Your task to perform on an android device: Go to Android settings Image 0: 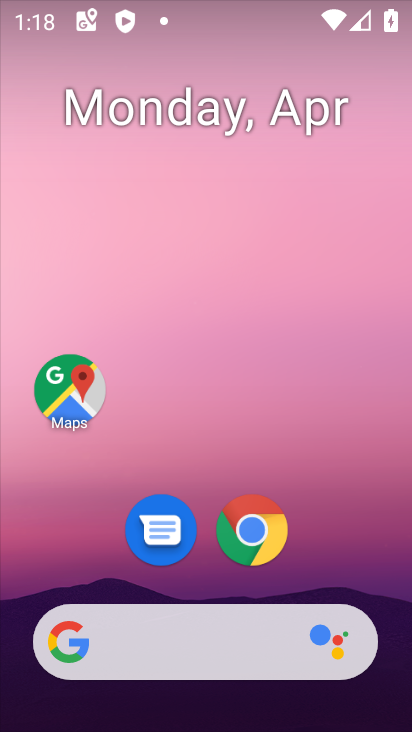
Step 0: drag from (350, 544) to (315, 187)
Your task to perform on an android device: Go to Android settings Image 1: 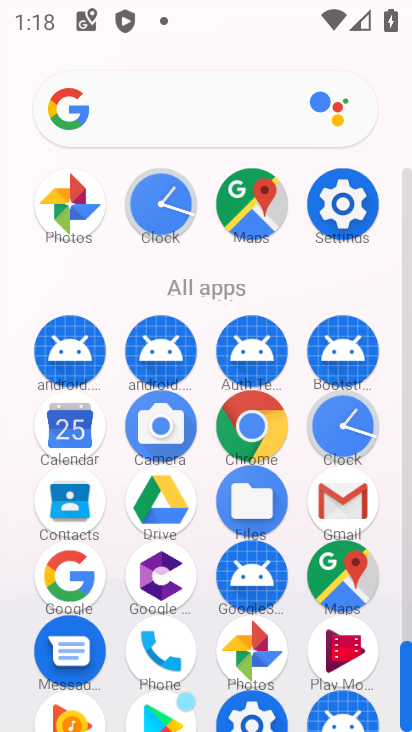
Step 1: click (342, 203)
Your task to perform on an android device: Go to Android settings Image 2: 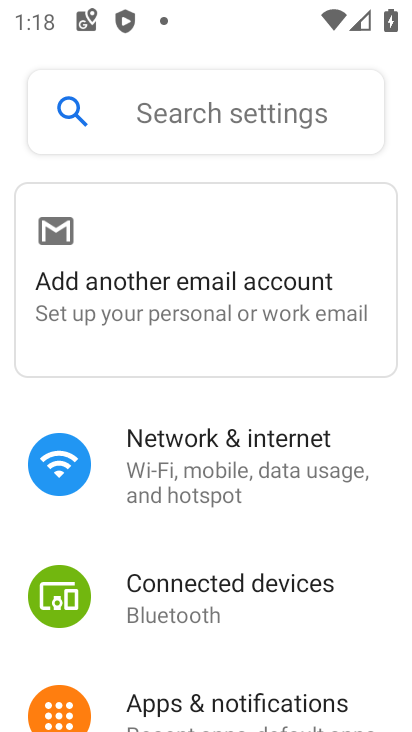
Step 2: drag from (241, 550) to (168, 233)
Your task to perform on an android device: Go to Android settings Image 3: 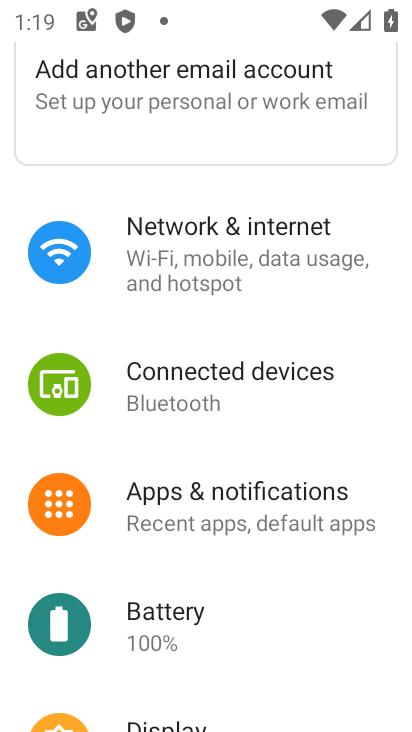
Step 3: drag from (245, 614) to (224, 358)
Your task to perform on an android device: Go to Android settings Image 4: 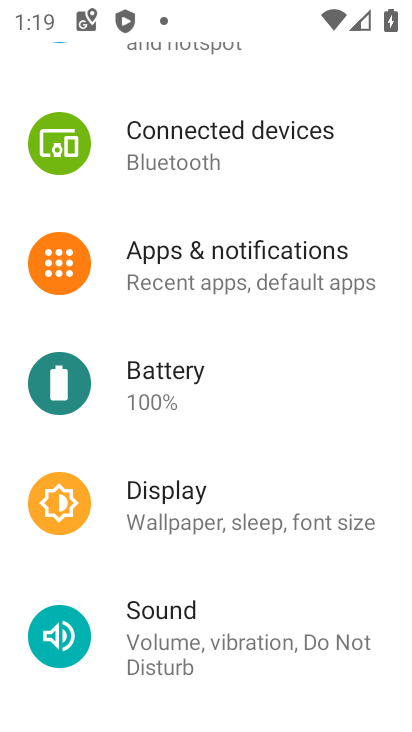
Step 4: drag from (237, 594) to (191, 103)
Your task to perform on an android device: Go to Android settings Image 5: 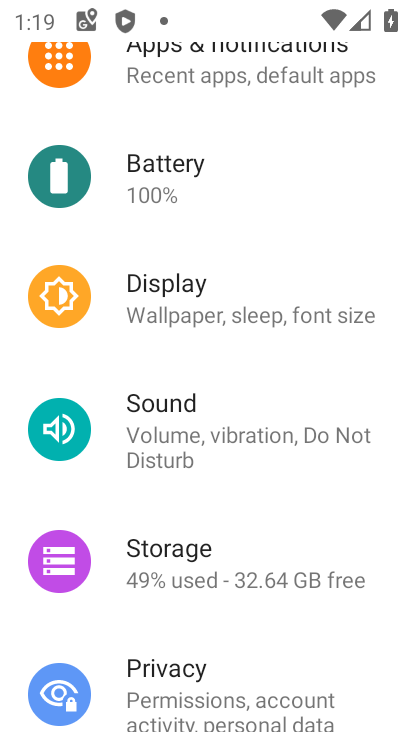
Step 5: drag from (223, 526) to (229, 145)
Your task to perform on an android device: Go to Android settings Image 6: 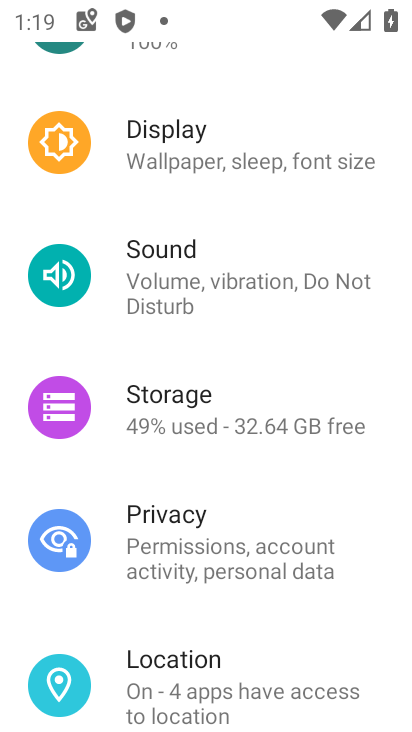
Step 6: drag from (239, 627) to (264, 150)
Your task to perform on an android device: Go to Android settings Image 7: 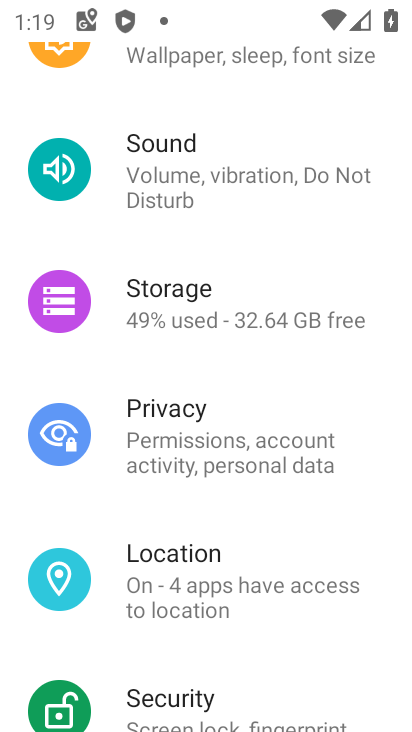
Step 7: drag from (257, 617) to (220, 69)
Your task to perform on an android device: Go to Android settings Image 8: 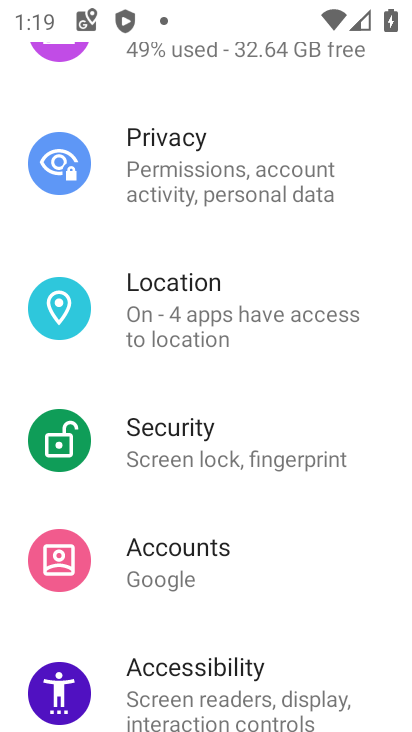
Step 8: drag from (258, 588) to (324, 230)
Your task to perform on an android device: Go to Android settings Image 9: 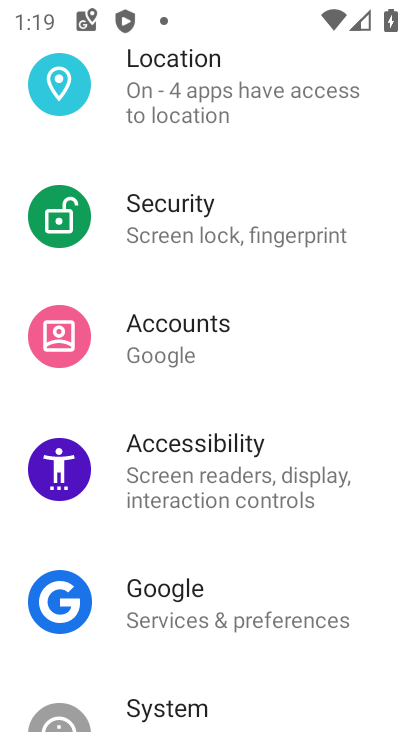
Step 9: drag from (262, 555) to (222, 194)
Your task to perform on an android device: Go to Android settings Image 10: 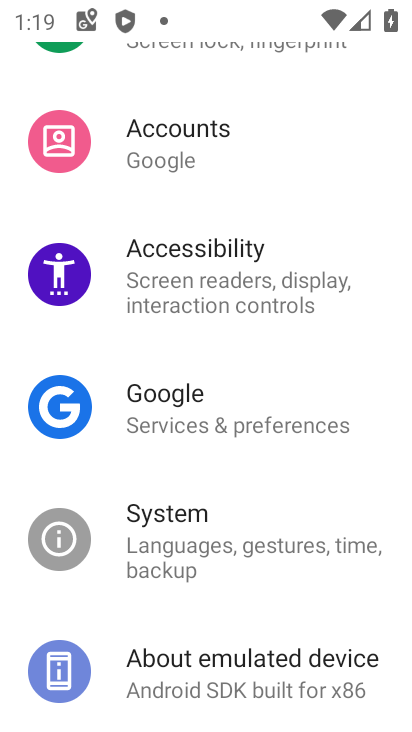
Step 10: click (221, 666)
Your task to perform on an android device: Go to Android settings Image 11: 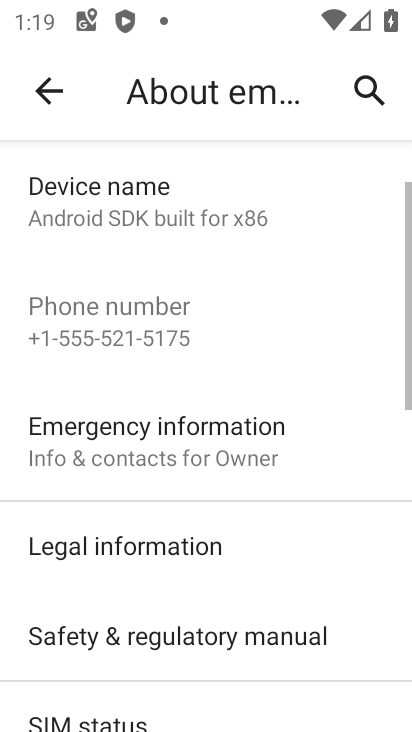
Step 11: drag from (214, 578) to (147, 207)
Your task to perform on an android device: Go to Android settings Image 12: 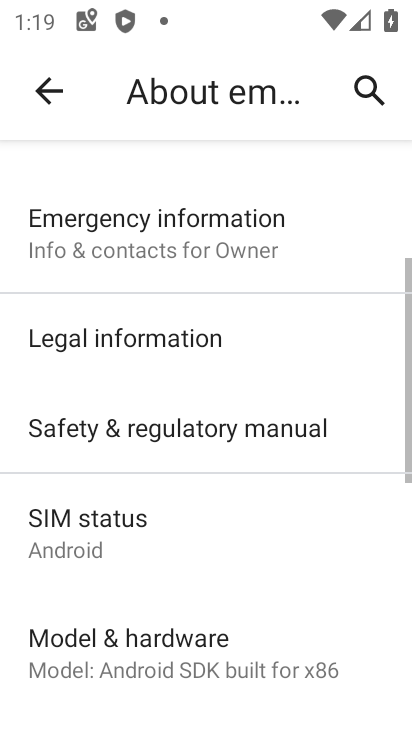
Step 12: drag from (178, 553) to (166, 249)
Your task to perform on an android device: Go to Android settings Image 13: 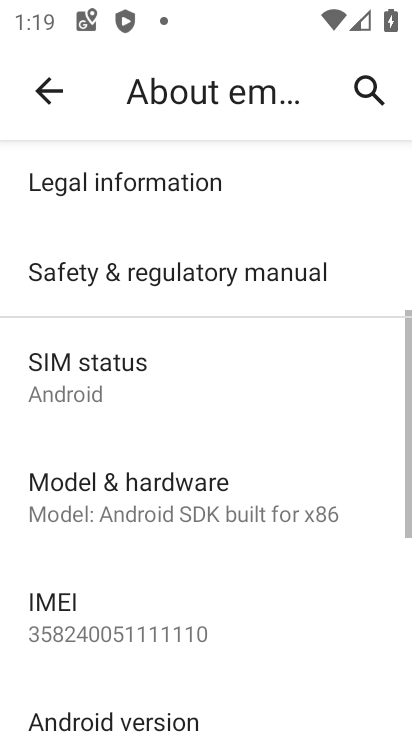
Step 13: drag from (176, 578) to (157, 221)
Your task to perform on an android device: Go to Android settings Image 14: 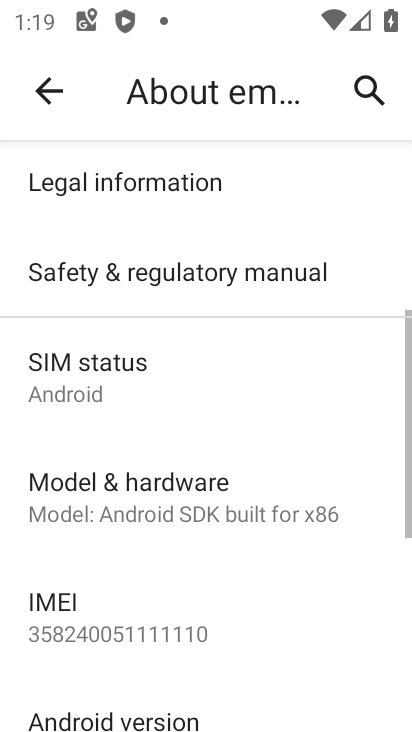
Step 14: drag from (217, 560) to (198, 266)
Your task to perform on an android device: Go to Android settings Image 15: 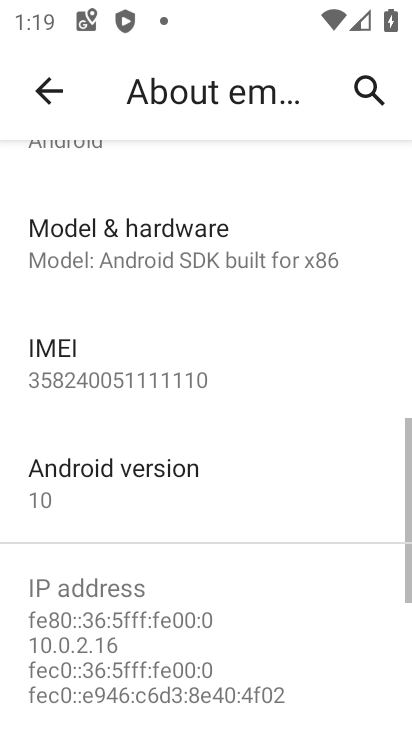
Step 15: click (124, 473)
Your task to perform on an android device: Go to Android settings Image 16: 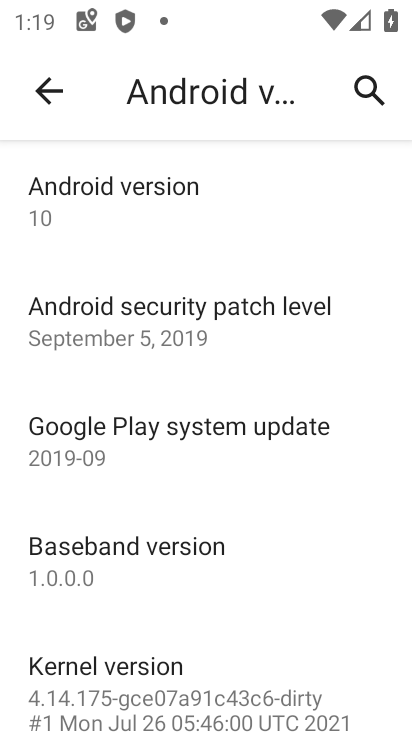
Step 16: task complete